Your task to perform on an android device: What is the news today? Image 0: 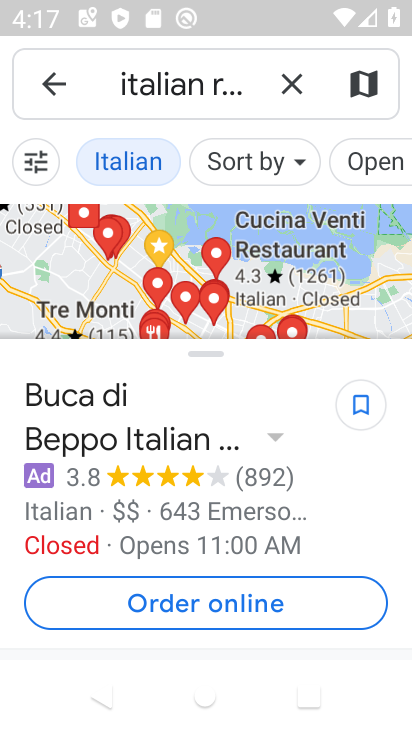
Step 0: press home button
Your task to perform on an android device: What is the news today? Image 1: 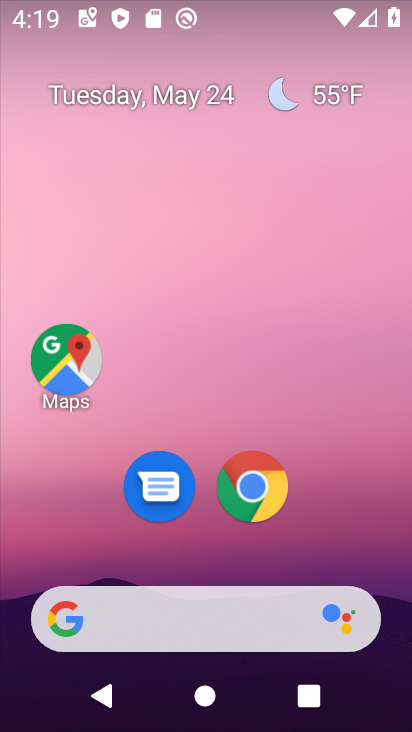
Step 1: drag from (325, 525) to (233, 3)
Your task to perform on an android device: What is the news today? Image 2: 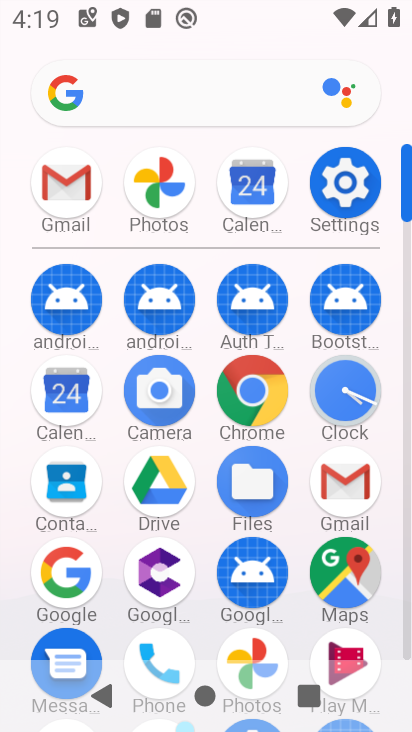
Step 2: click (63, 594)
Your task to perform on an android device: What is the news today? Image 3: 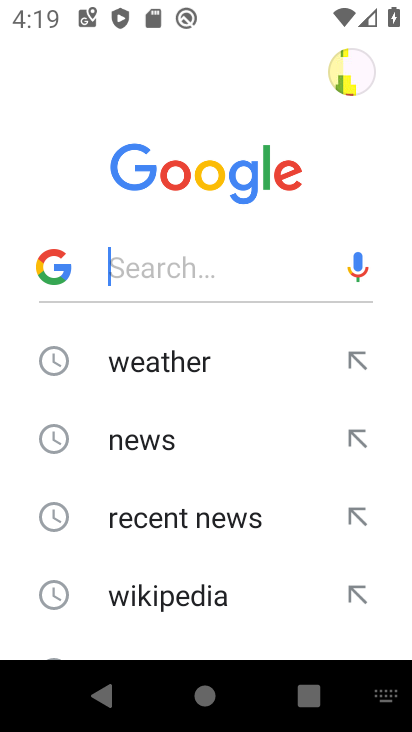
Step 3: click (157, 431)
Your task to perform on an android device: What is the news today? Image 4: 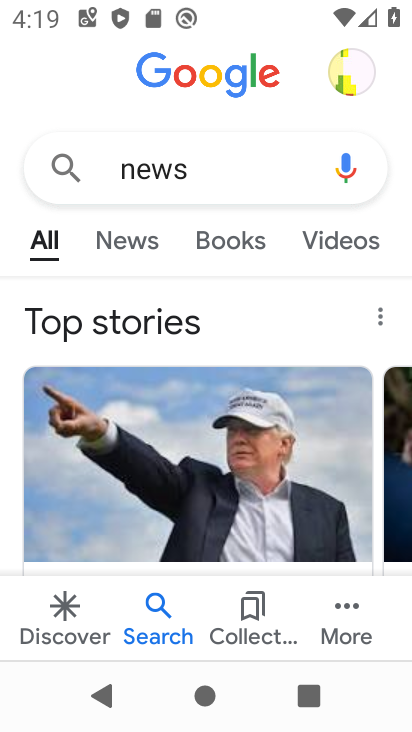
Step 4: task complete